Your task to perform on an android device: delete a single message in the gmail app Image 0: 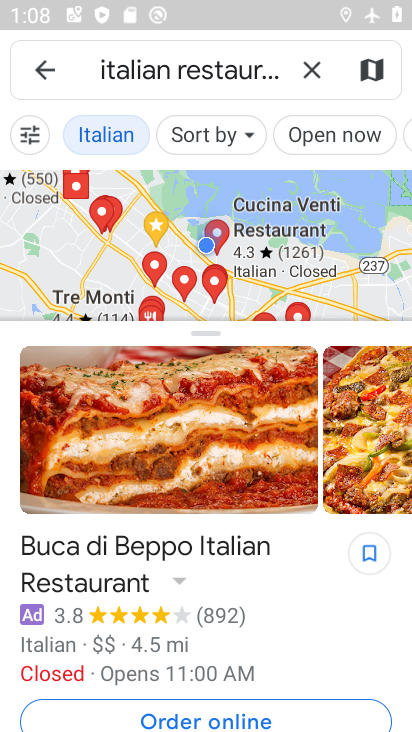
Step 0: press home button
Your task to perform on an android device: delete a single message in the gmail app Image 1: 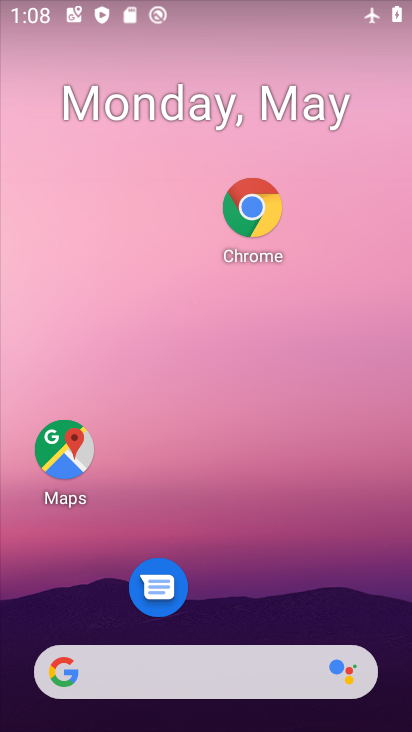
Step 1: drag from (258, 621) to (398, 26)
Your task to perform on an android device: delete a single message in the gmail app Image 2: 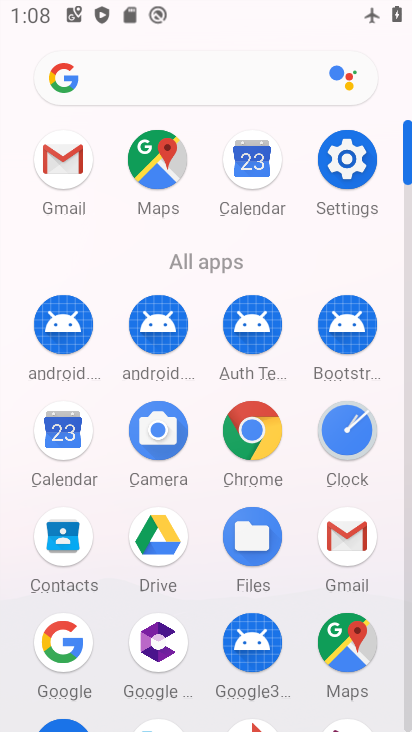
Step 2: click (71, 192)
Your task to perform on an android device: delete a single message in the gmail app Image 3: 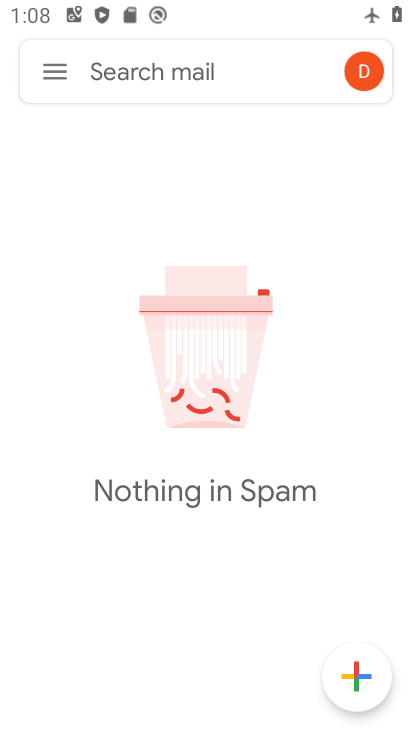
Step 3: click (40, 71)
Your task to perform on an android device: delete a single message in the gmail app Image 4: 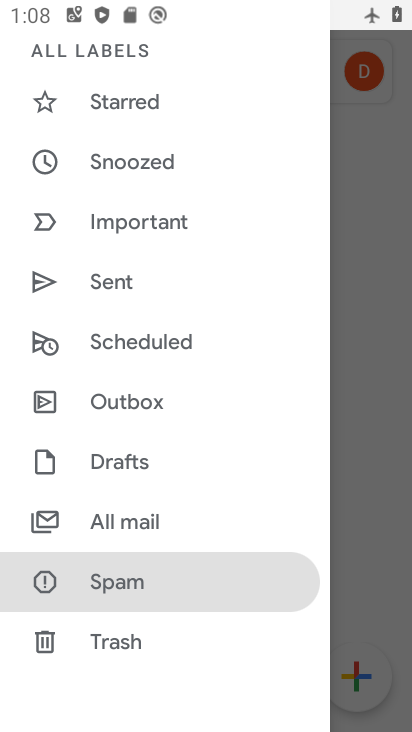
Step 4: drag from (119, 170) to (149, 462)
Your task to perform on an android device: delete a single message in the gmail app Image 5: 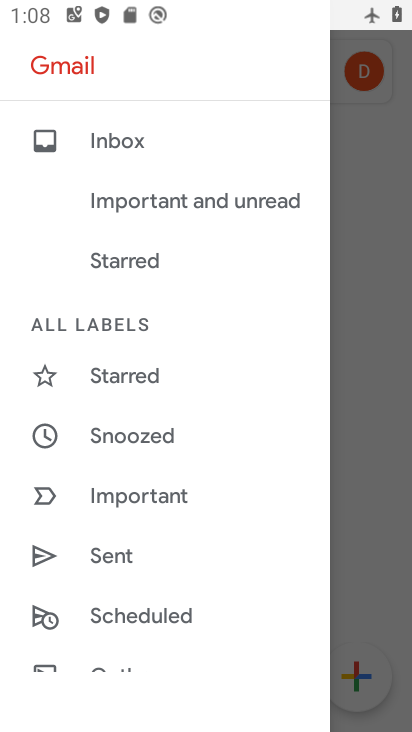
Step 5: click (148, 153)
Your task to perform on an android device: delete a single message in the gmail app Image 6: 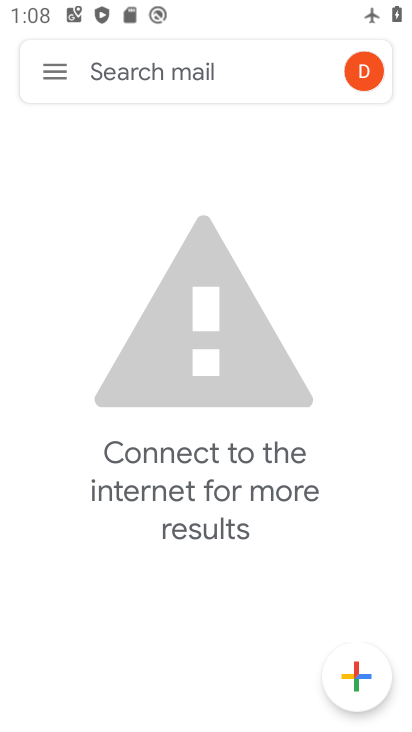
Step 6: task complete